Your task to perform on an android device: Go to CNN.com Image 0: 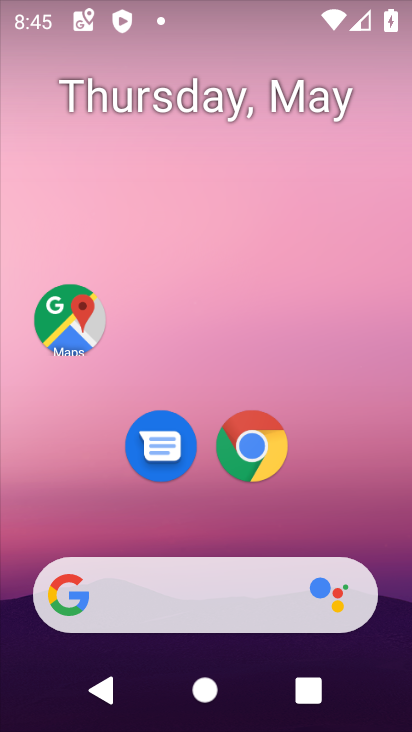
Step 0: click (253, 452)
Your task to perform on an android device: Go to CNN.com Image 1: 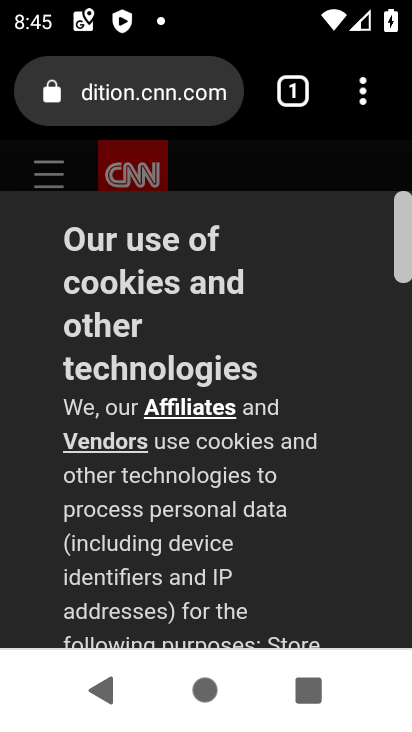
Step 1: task complete